Your task to perform on an android device: change the clock display to analog Image 0: 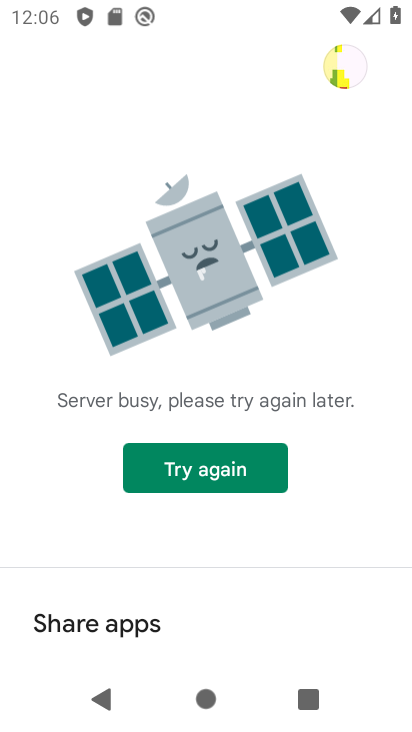
Step 0: press home button
Your task to perform on an android device: change the clock display to analog Image 1: 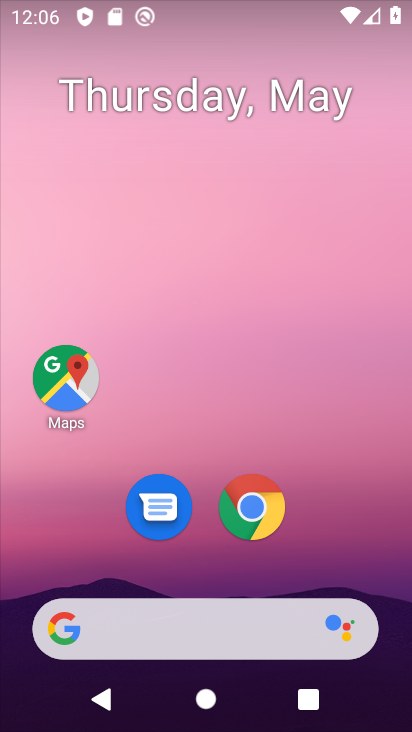
Step 1: drag from (176, 595) to (195, 252)
Your task to perform on an android device: change the clock display to analog Image 2: 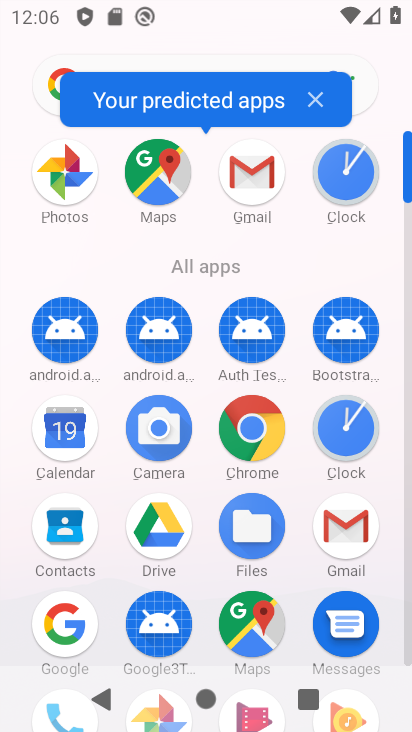
Step 2: click (338, 187)
Your task to perform on an android device: change the clock display to analog Image 3: 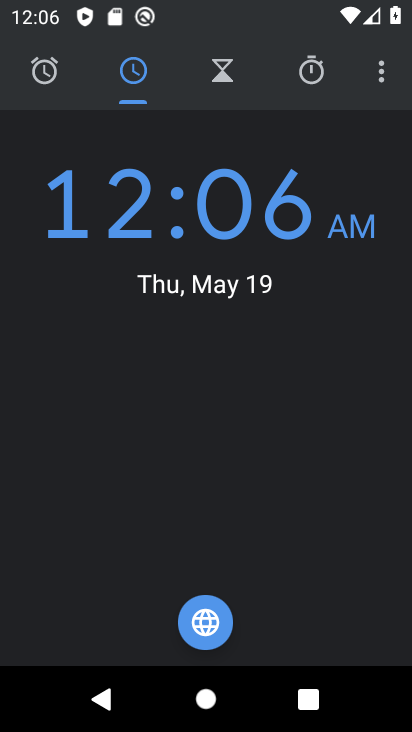
Step 3: click (375, 71)
Your task to perform on an android device: change the clock display to analog Image 4: 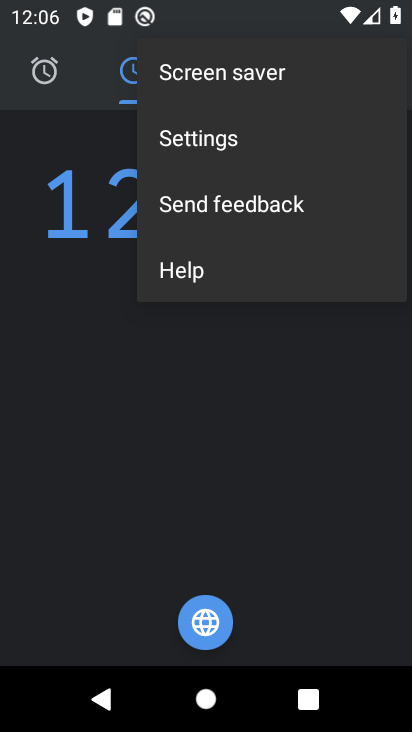
Step 4: click (181, 140)
Your task to perform on an android device: change the clock display to analog Image 5: 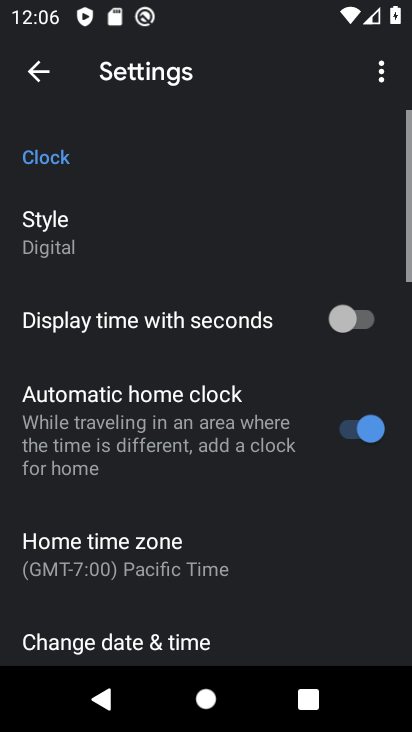
Step 5: click (47, 234)
Your task to perform on an android device: change the clock display to analog Image 6: 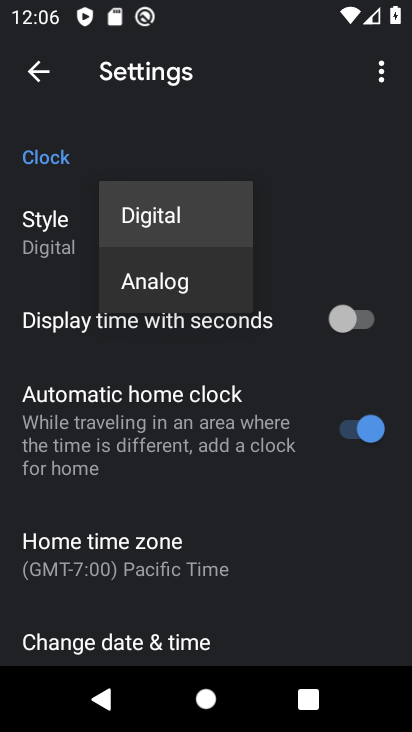
Step 6: click (145, 281)
Your task to perform on an android device: change the clock display to analog Image 7: 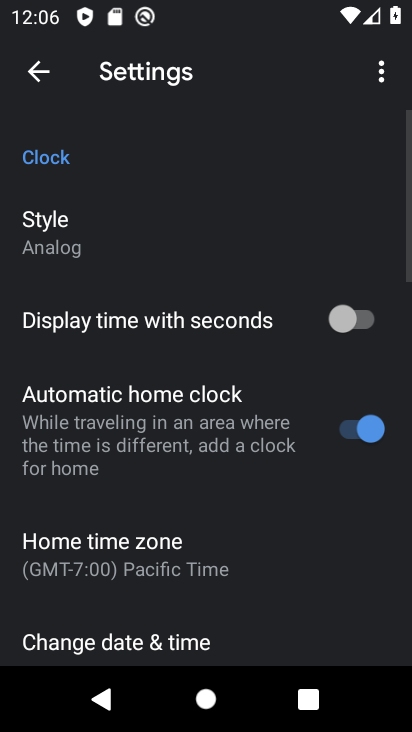
Step 7: task complete